Your task to perform on an android device: Go to location settings Image 0: 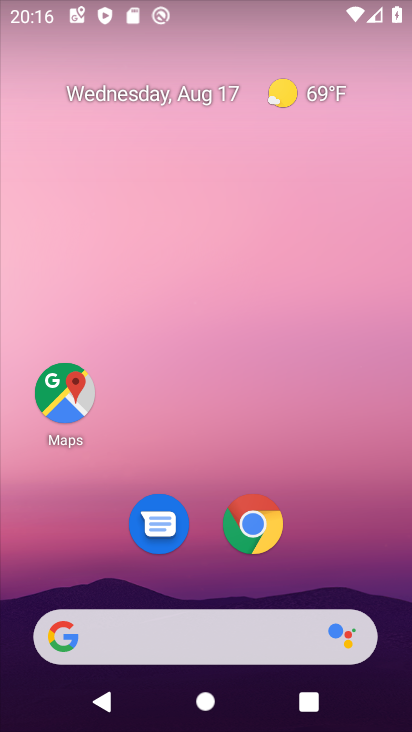
Step 0: drag from (315, 522) to (331, 17)
Your task to perform on an android device: Go to location settings Image 1: 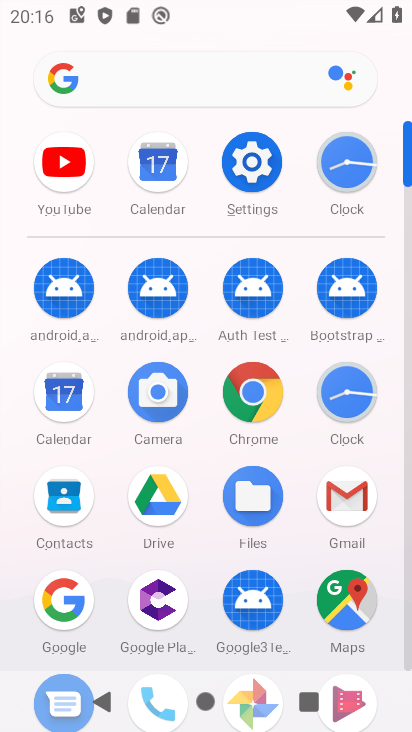
Step 1: click (253, 159)
Your task to perform on an android device: Go to location settings Image 2: 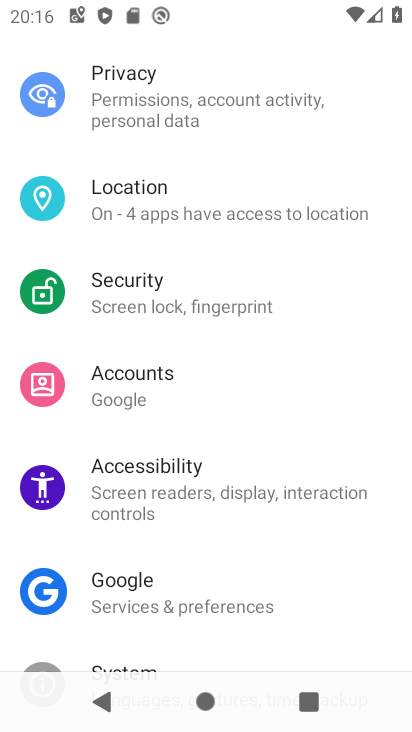
Step 2: click (239, 210)
Your task to perform on an android device: Go to location settings Image 3: 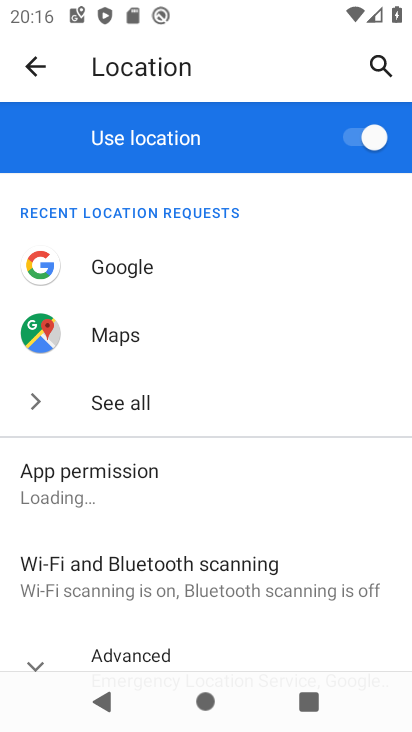
Step 3: task complete